Your task to perform on an android device: Go to eBay Image 0: 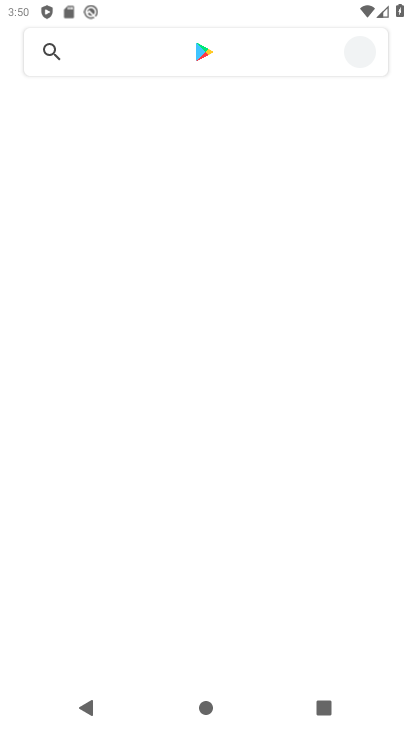
Step 0: press home button
Your task to perform on an android device: Go to eBay Image 1: 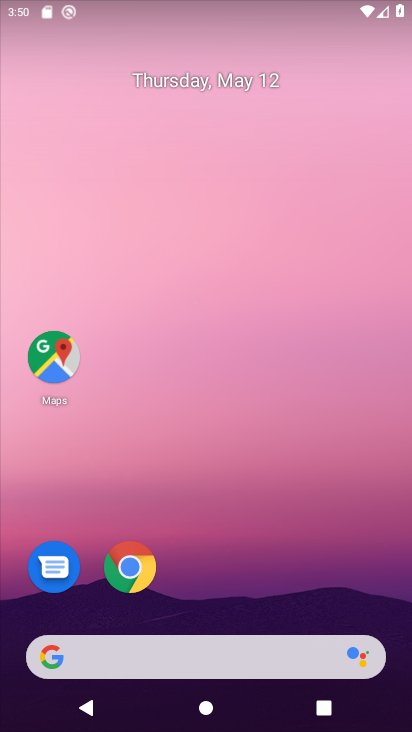
Step 1: click (137, 578)
Your task to perform on an android device: Go to eBay Image 2: 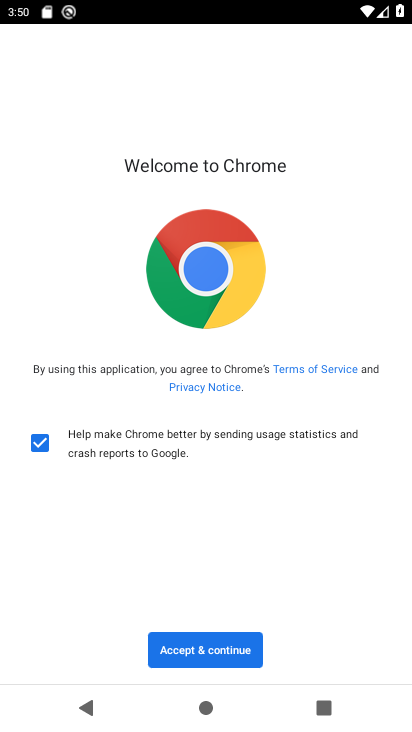
Step 2: click (194, 654)
Your task to perform on an android device: Go to eBay Image 3: 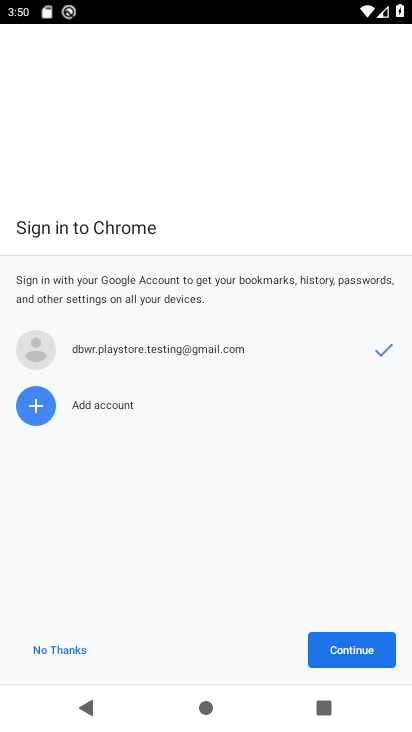
Step 3: click (344, 649)
Your task to perform on an android device: Go to eBay Image 4: 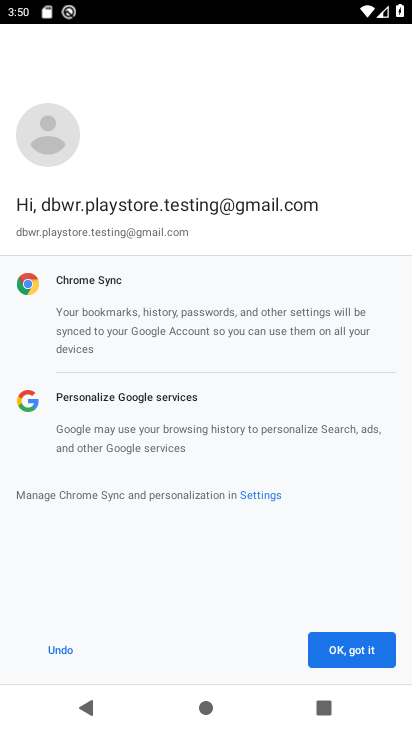
Step 4: click (355, 651)
Your task to perform on an android device: Go to eBay Image 5: 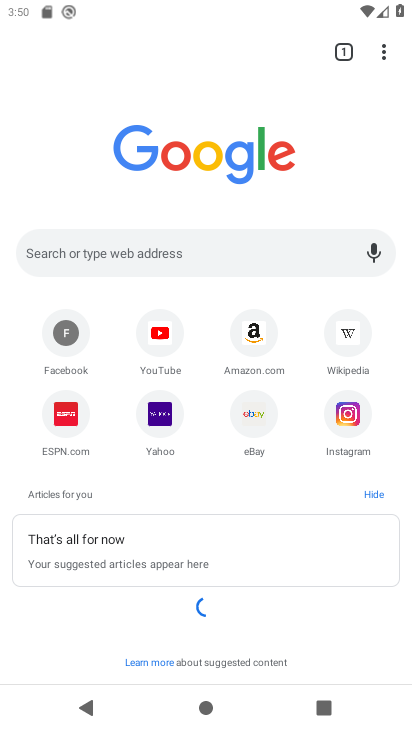
Step 5: click (255, 421)
Your task to perform on an android device: Go to eBay Image 6: 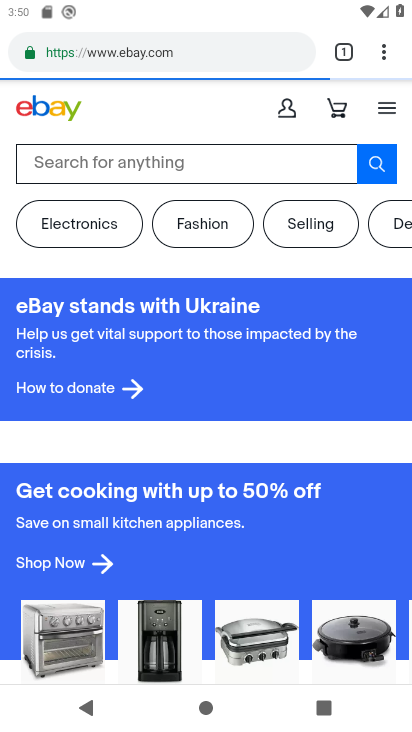
Step 6: task complete